Your task to perform on an android device: change the clock display to digital Image 0: 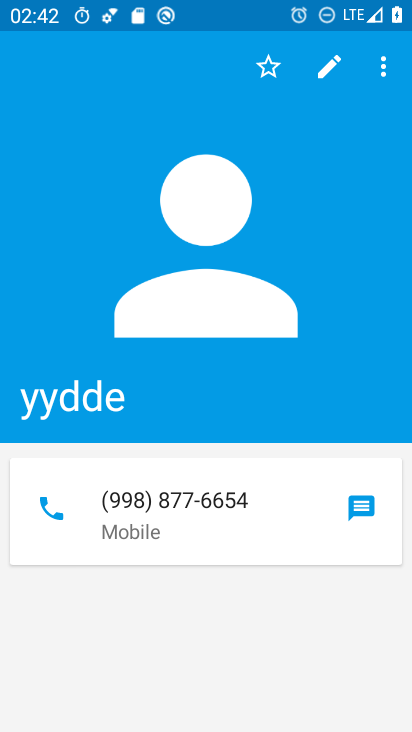
Step 0: press home button
Your task to perform on an android device: change the clock display to digital Image 1: 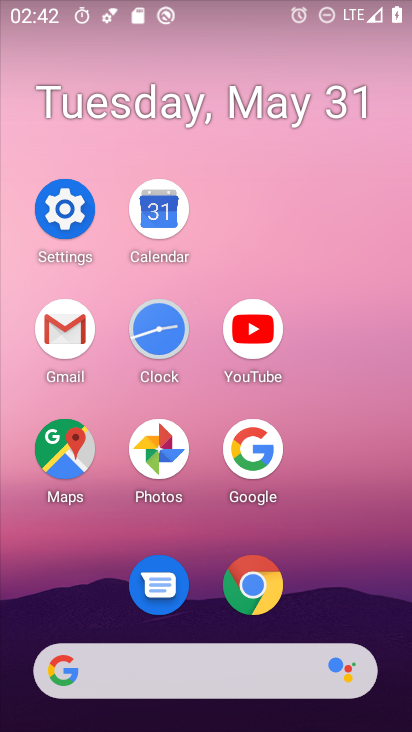
Step 1: click (153, 305)
Your task to perform on an android device: change the clock display to digital Image 2: 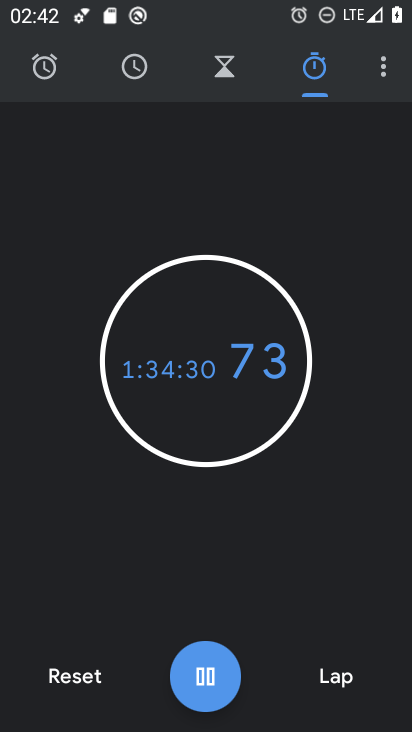
Step 2: click (393, 65)
Your task to perform on an android device: change the clock display to digital Image 3: 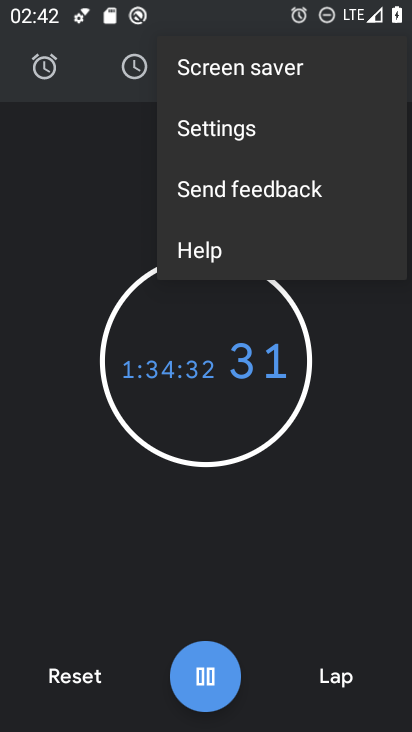
Step 3: click (248, 131)
Your task to perform on an android device: change the clock display to digital Image 4: 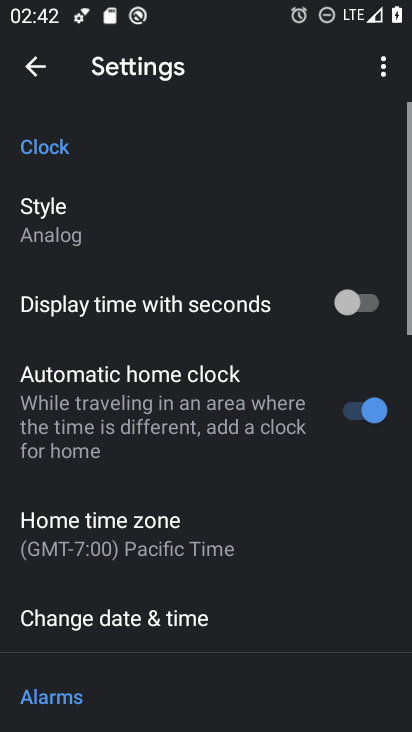
Step 4: click (74, 217)
Your task to perform on an android device: change the clock display to digital Image 5: 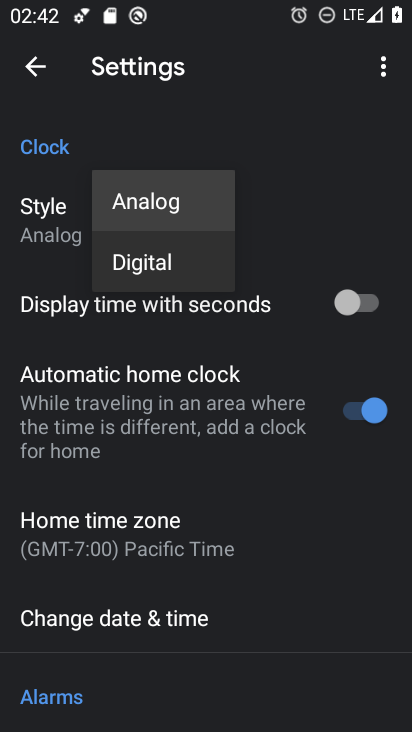
Step 5: click (131, 274)
Your task to perform on an android device: change the clock display to digital Image 6: 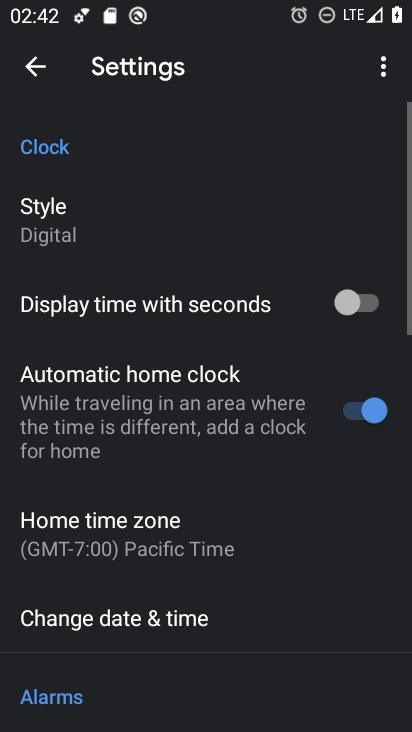
Step 6: task complete